Your task to perform on an android device: turn on wifi Image 0: 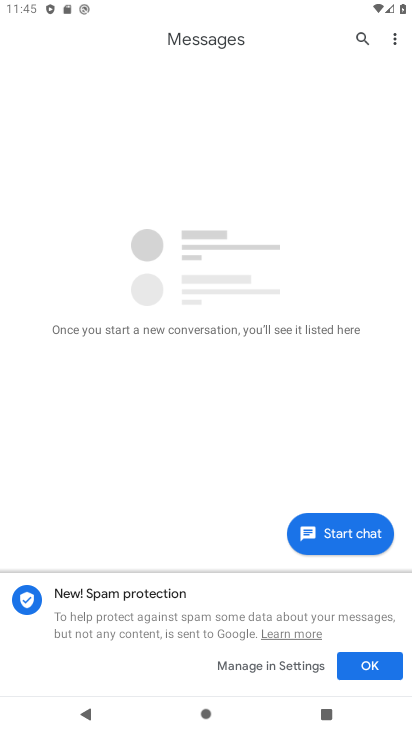
Step 0: press back button
Your task to perform on an android device: turn on wifi Image 1: 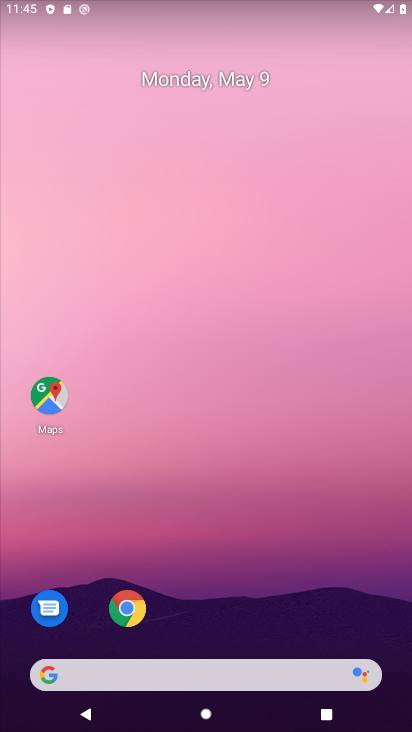
Step 1: drag from (198, 602) to (212, 3)
Your task to perform on an android device: turn on wifi Image 2: 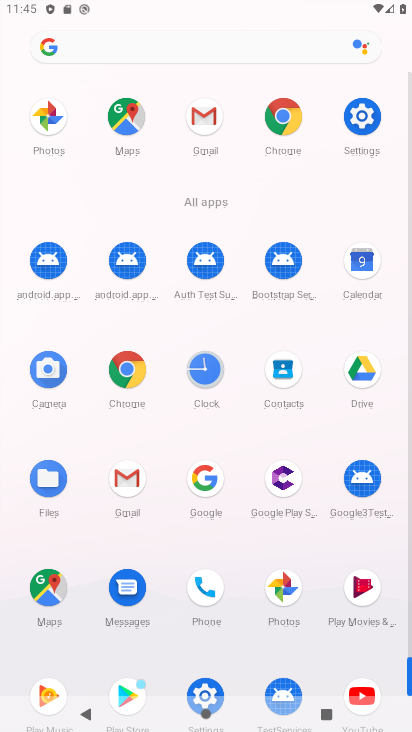
Step 2: click (360, 114)
Your task to perform on an android device: turn on wifi Image 3: 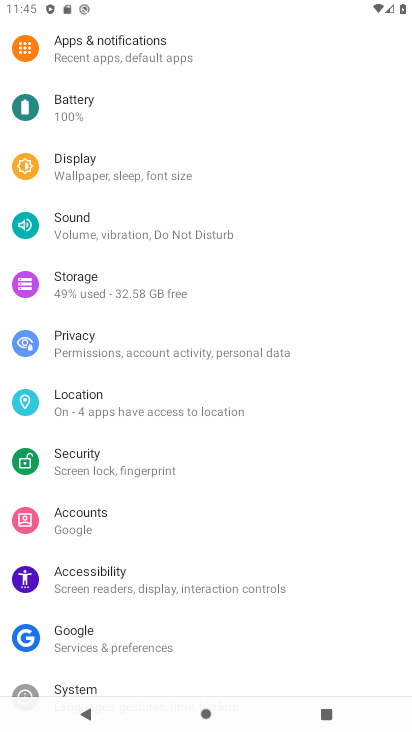
Step 3: drag from (281, 110) to (218, 590)
Your task to perform on an android device: turn on wifi Image 4: 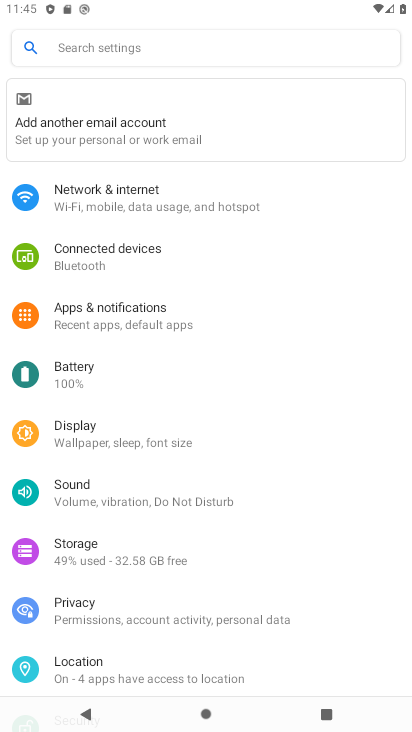
Step 4: click (171, 204)
Your task to perform on an android device: turn on wifi Image 5: 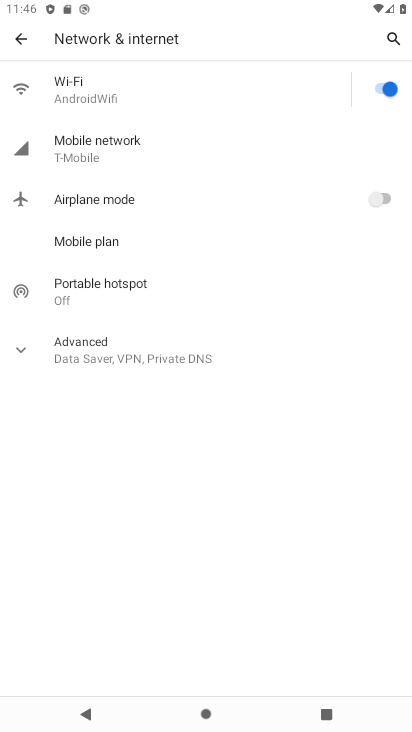
Step 5: task complete